Your task to perform on an android device: Go to calendar. Show me events next week Image 0: 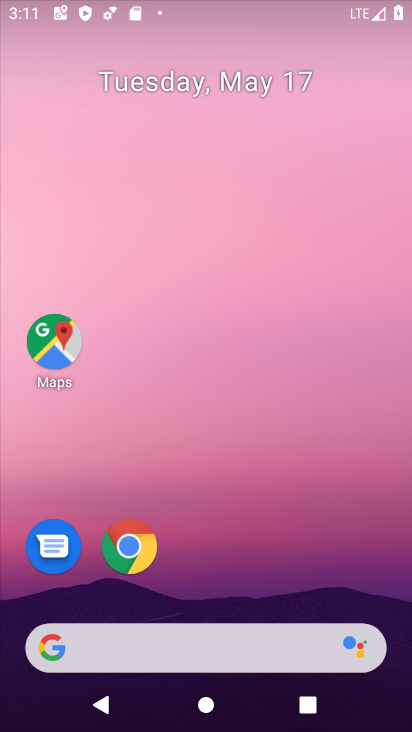
Step 0: press home button
Your task to perform on an android device: Go to calendar. Show me events next week Image 1: 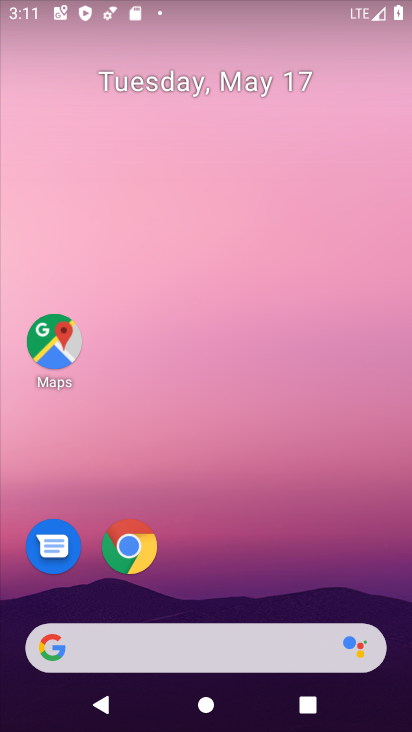
Step 1: drag from (330, 555) to (334, 114)
Your task to perform on an android device: Go to calendar. Show me events next week Image 2: 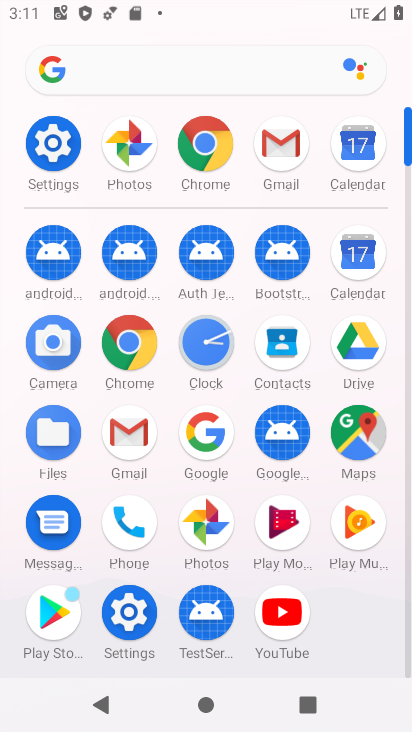
Step 2: click (346, 282)
Your task to perform on an android device: Go to calendar. Show me events next week Image 3: 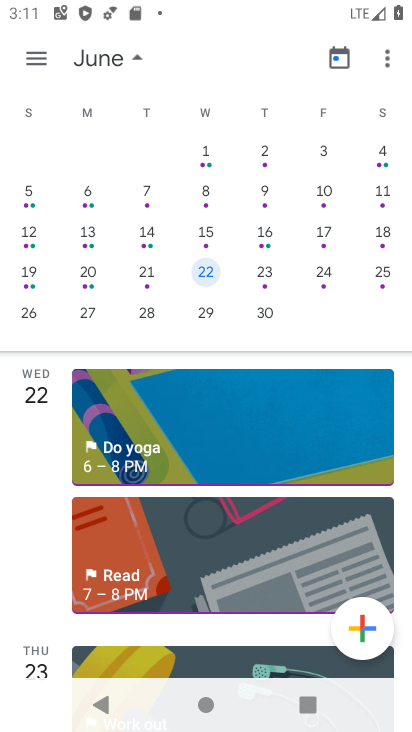
Step 3: drag from (45, 155) to (71, 710)
Your task to perform on an android device: Go to calendar. Show me events next week Image 4: 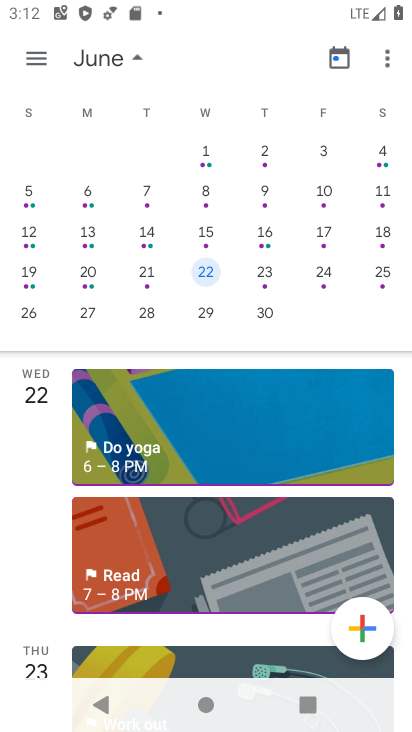
Step 4: drag from (53, 138) to (408, 148)
Your task to perform on an android device: Go to calendar. Show me events next week Image 5: 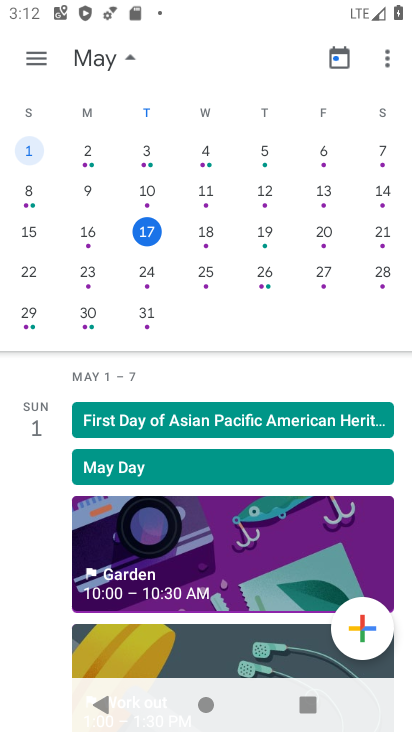
Step 5: click (129, 65)
Your task to perform on an android device: Go to calendar. Show me events next week Image 6: 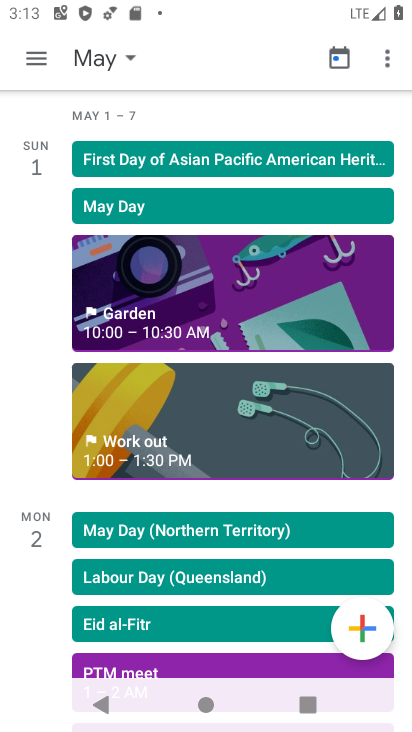
Step 6: click (128, 56)
Your task to perform on an android device: Go to calendar. Show me events next week Image 7: 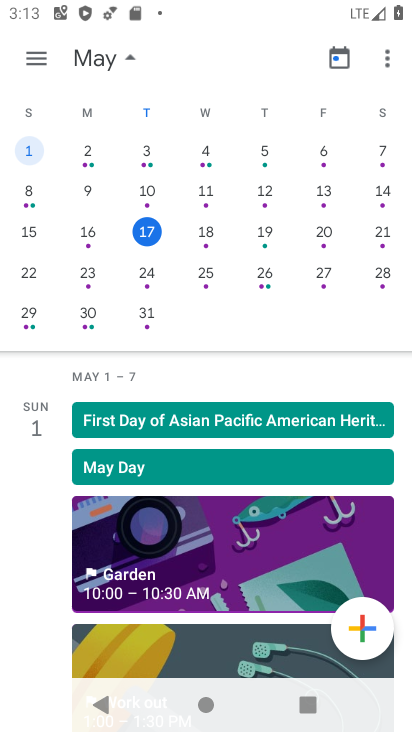
Step 7: click (159, 273)
Your task to perform on an android device: Go to calendar. Show me events next week Image 8: 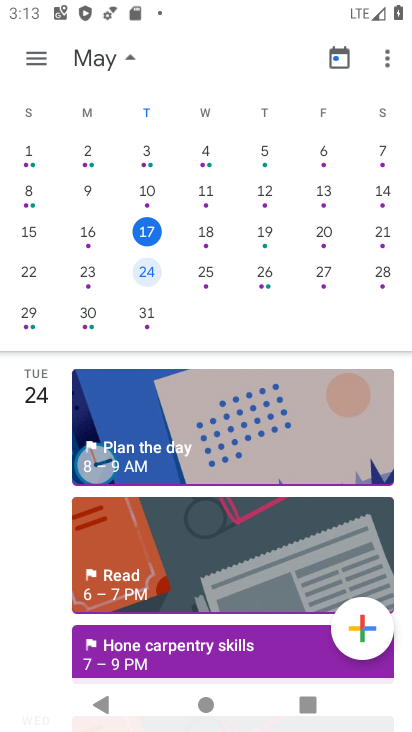
Step 8: click (134, 61)
Your task to perform on an android device: Go to calendar. Show me events next week Image 9: 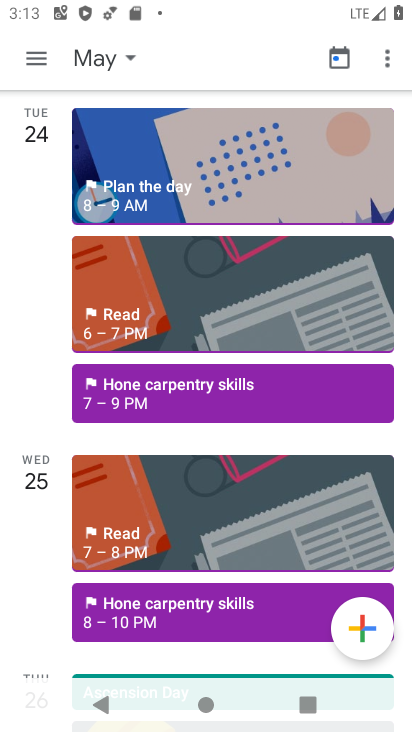
Step 9: task complete